Your task to perform on an android device: Go to Reddit.com Image 0: 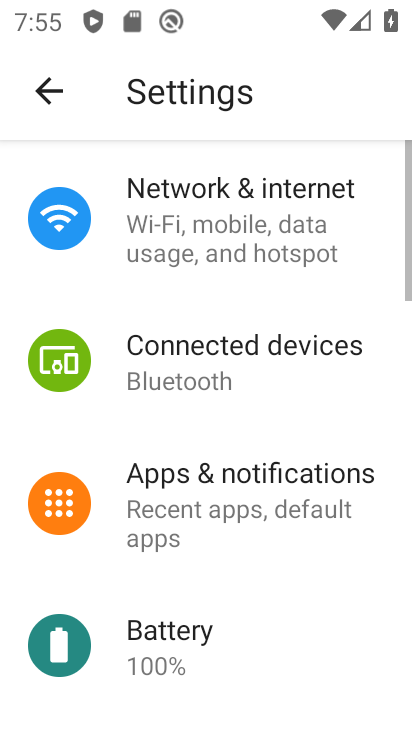
Step 0: press home button
Your task to perform on an android device: Go to Reddit.com Image 1: 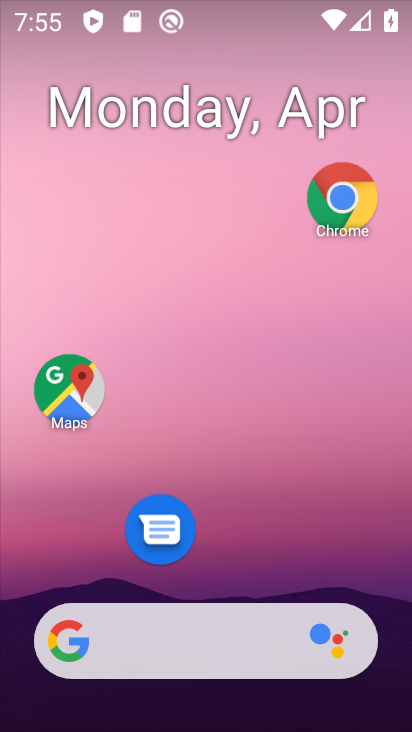
Step 1: click (342, 177)
Your task to perform on an android device: Go to Reddit.com Image 2: 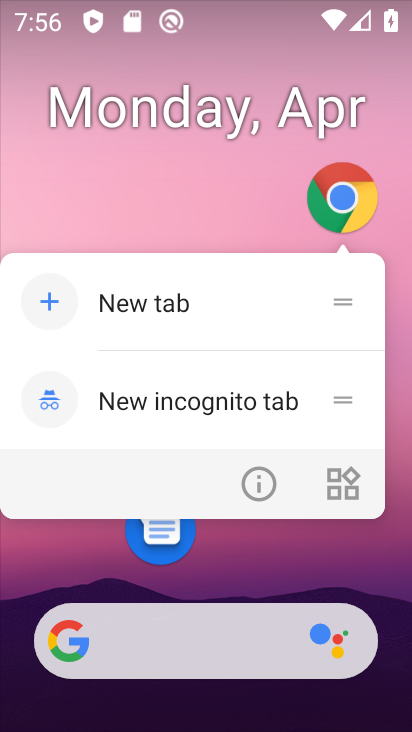
Step 2: click (351, 194)
Your task to perform on an android device: Go to Reddit.com Image 3: 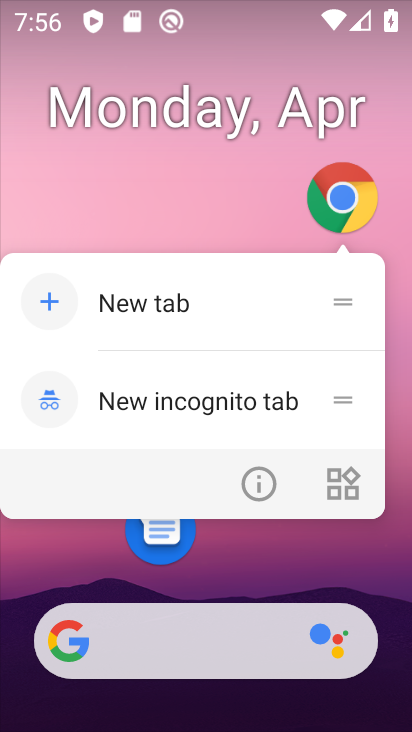
Step 3: click (351, 194)
Your task to perform on an android device: Go to Reddit.com Image 4: 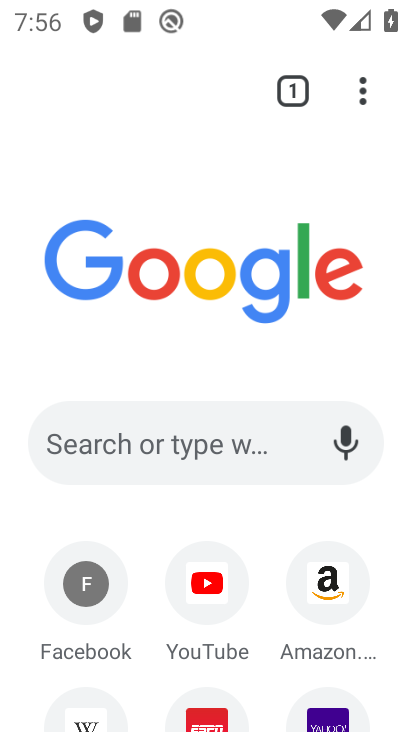
Step 4: click (164, 449)
Your task to perform on an android device: Go to Reddit.com Image 5: 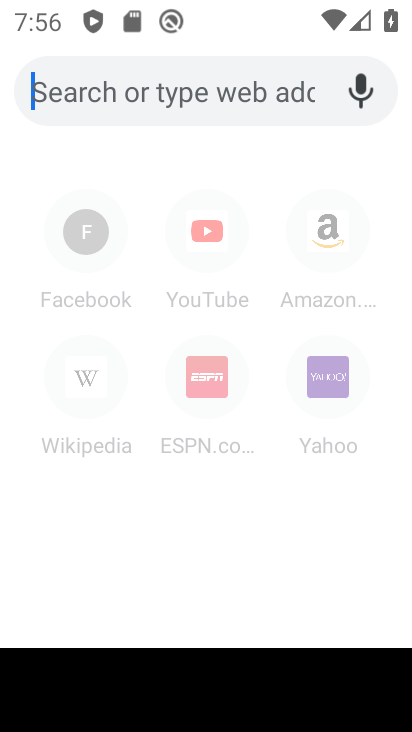
Step 5: type "reddit.com"
Your task to perform on an android device: Go to Reddit.com Image 6: 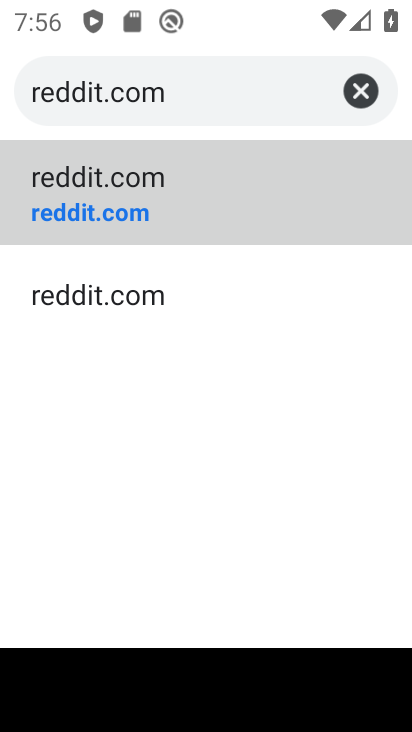
Step 6: click (184, 208)
Your task to perform on an android device: Go to Reddit.com Image 7: 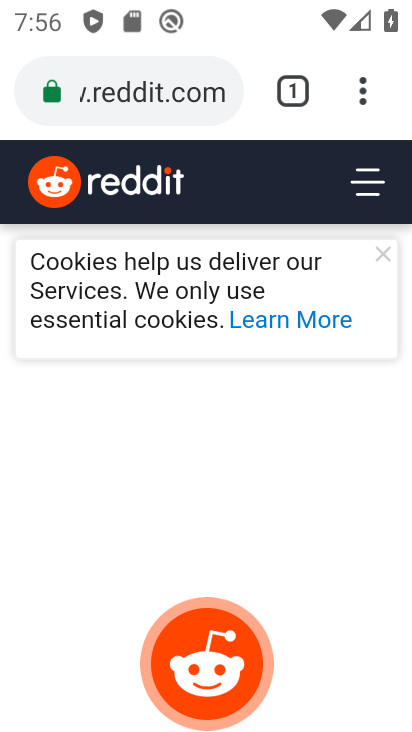
Step 7: task complete